Your task to perform on an android device: open app "Cash App" (install if not already installed), go to login, and select forgot password Image 0: 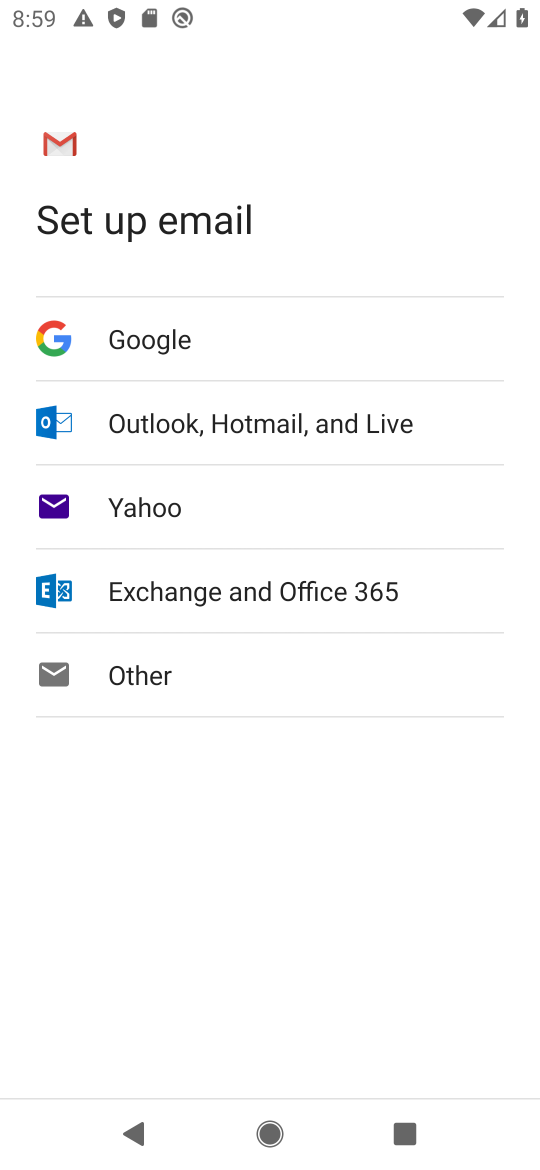
Step 0: press home button
Your task to perform on an android device: open app "Cash App" (install if not already installed), go to login, and select forgot password Image 1: 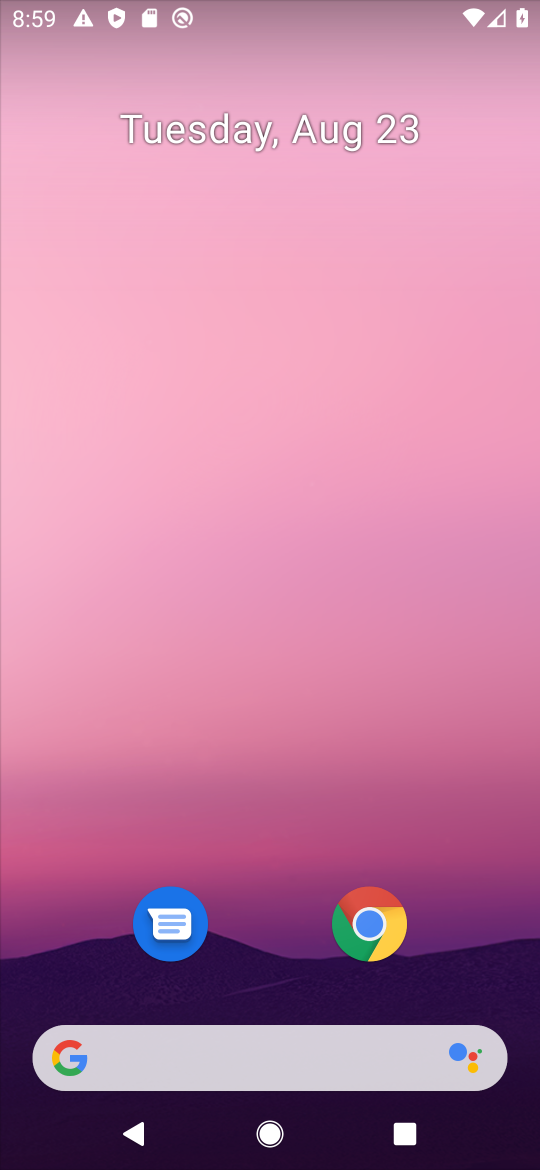
Step 1: drag from (452, 545) to (439, 71)
Your task to perform on an android device: open app "Cash App" (install if not already installed), go to login, and select forgot password Image 2: 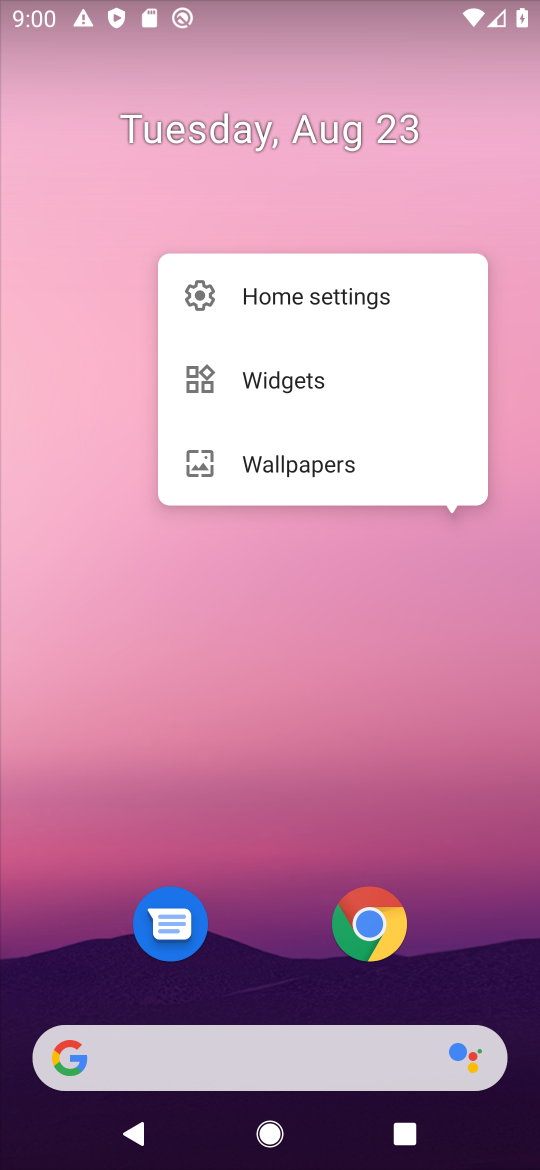
Step 2: click (432, 698)
Your task to perform on an android device: open app "Cash App" (install if not already installed), go to login, and select forgot password Image 3: 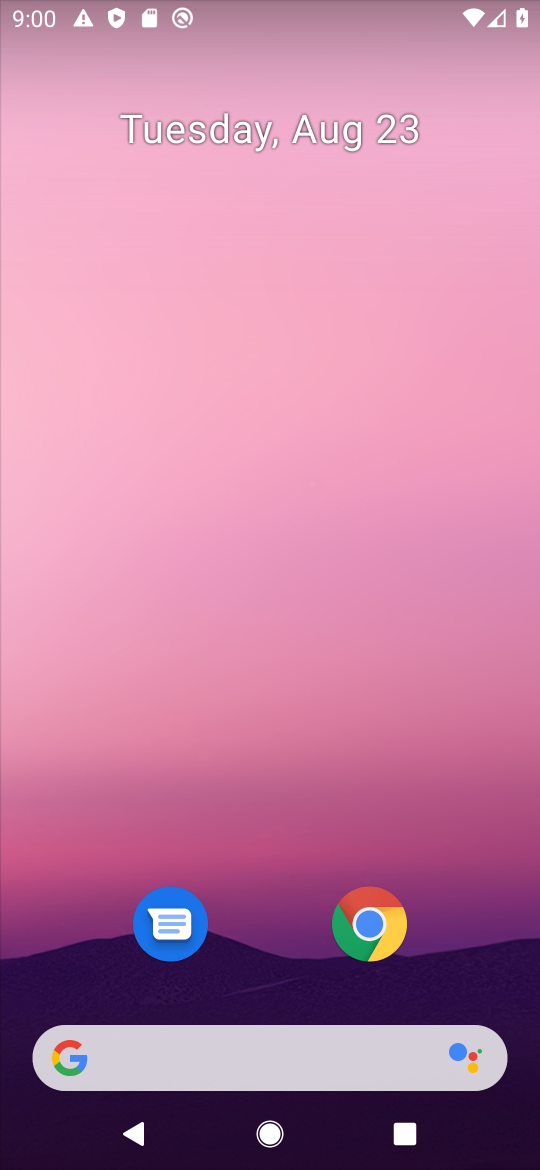
Step 3: drag from (437, 984) to (442, 70)
Your task to perform on an android device: open app "Cash App" (install if not already installed), go to login, and select forgot password Image 4: 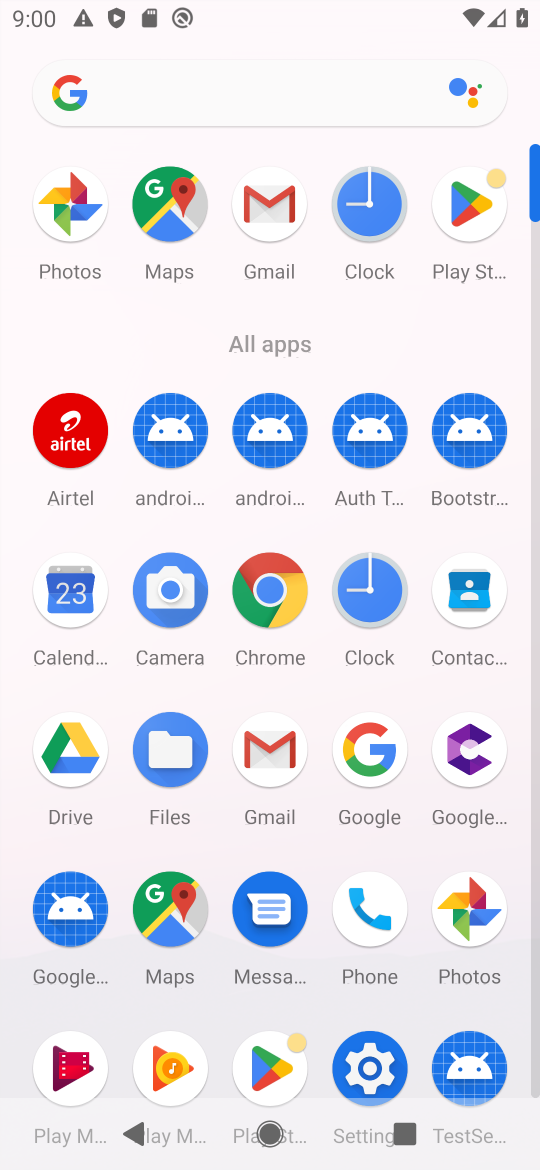
Step 4: click (473, 206)
Your task to perform on an android device: open app "Cash App" (install if not already installed), go to login, and select forgot password Image 5: 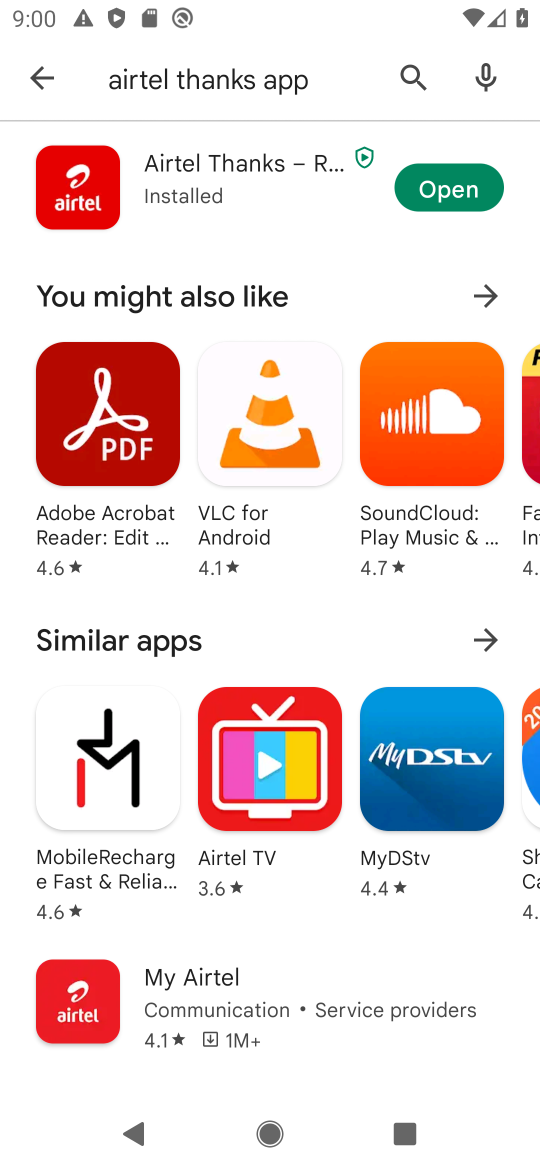
Step 5: press back button
Your task to perform on an android device: open app "Cash App" (install if not already installed), go to login, and select forgot password Image 6: 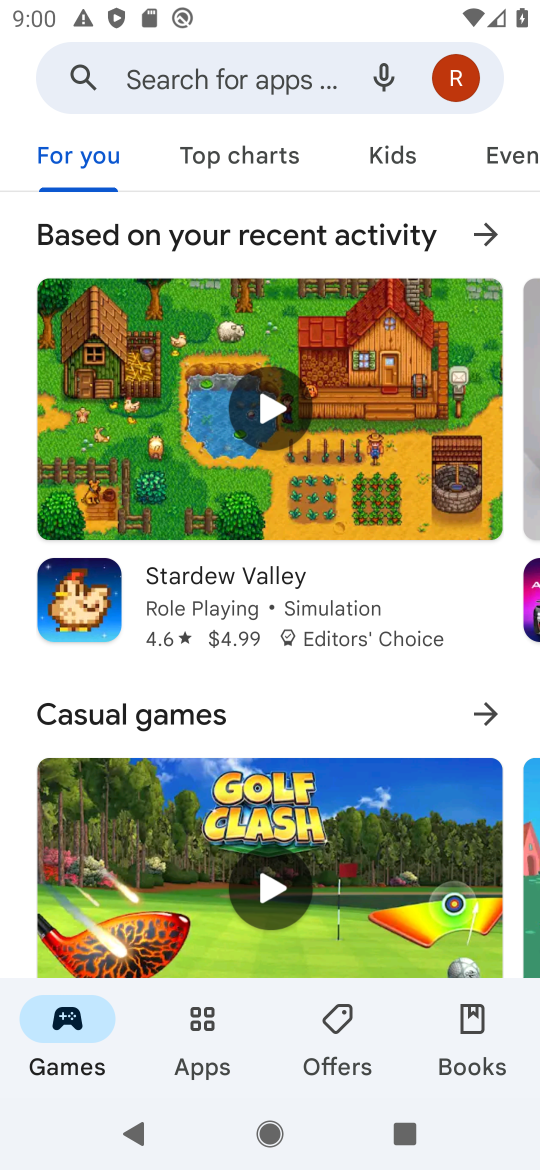
Step 6: click (273, 77)
Your task to perform on an android device: open app "Cash App" (install if not already installed), go to login, and select forgot password Image 7: 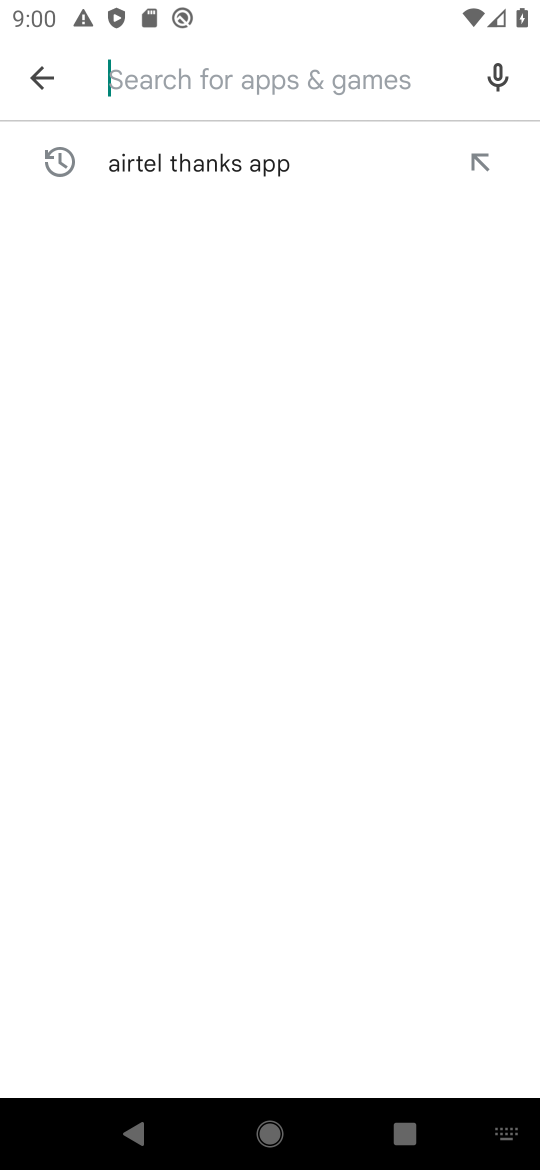
Step 7: type "cash app"
Your task to perform on an android device: open app "Cash App" (install if not already installed), go to login, and select forgot password Image 8: 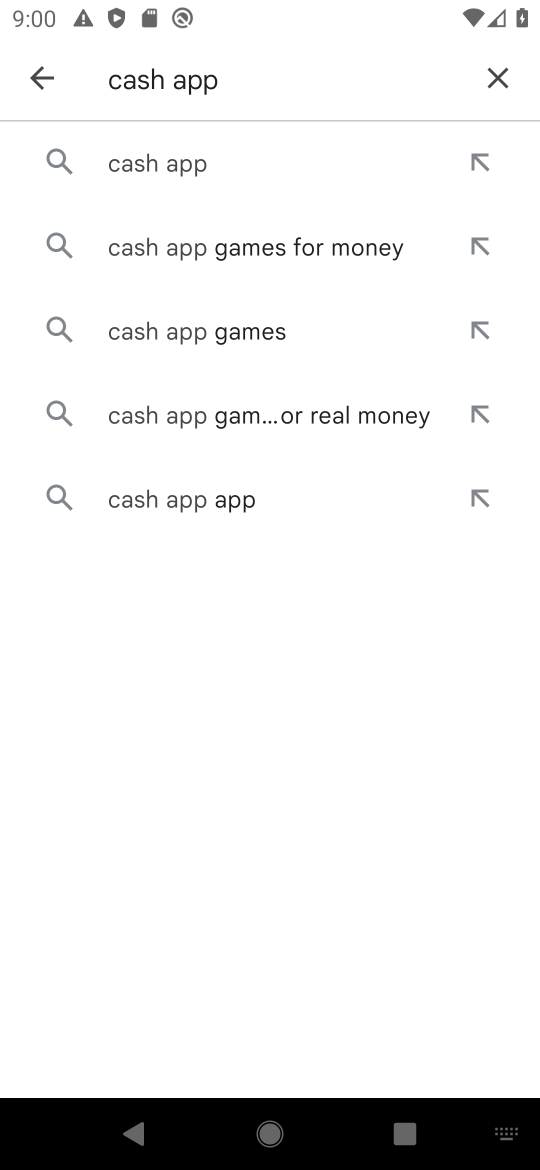
Step 8: click (196, 182)
Your task to perform on an android device: open app "Cash App" (install if not already installed), go to login, and select forgot password Image 9: 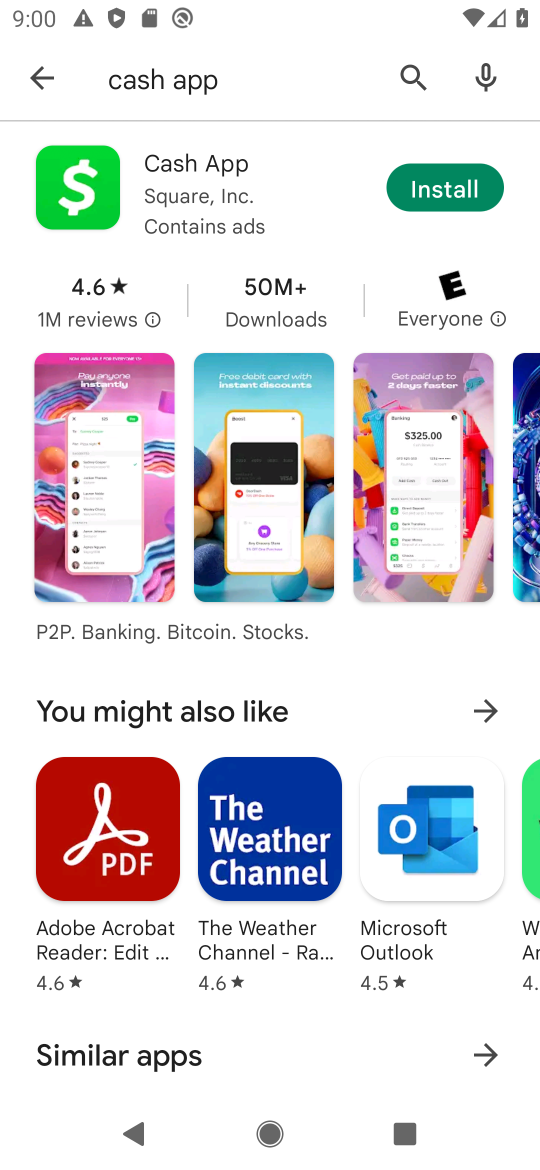
Step 9: click (450, 195)
Your task to perform on an android device: open app "Cash App" (install if not already installed), go to login, and select forgot password Image 10: 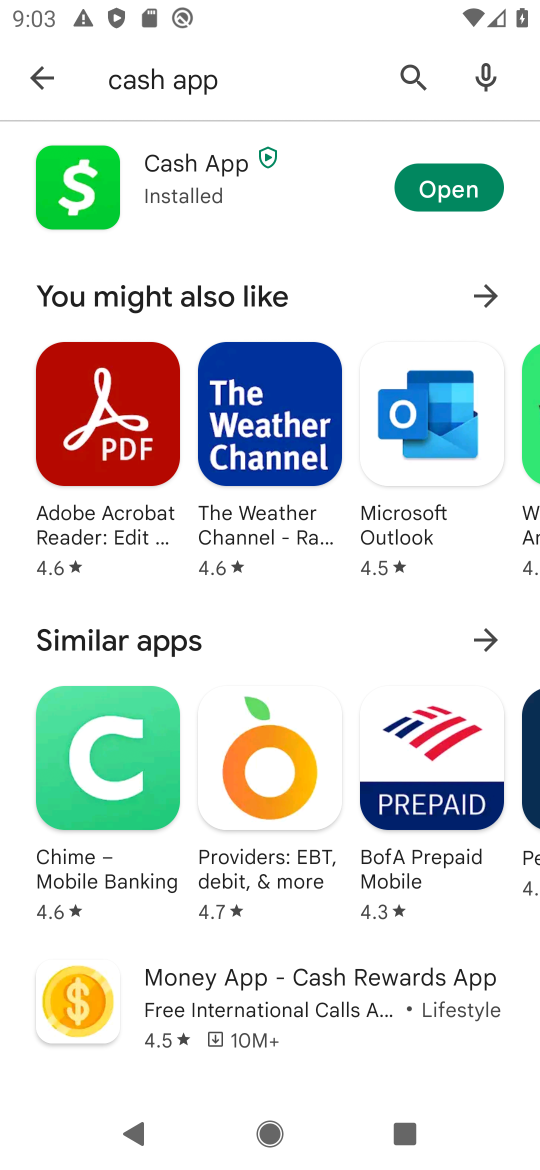
Step 10: click (443, 187)
Your task to perform on an android device: open app "Cash App" (install if not already installed), go to login, and select forgot password Image 11: 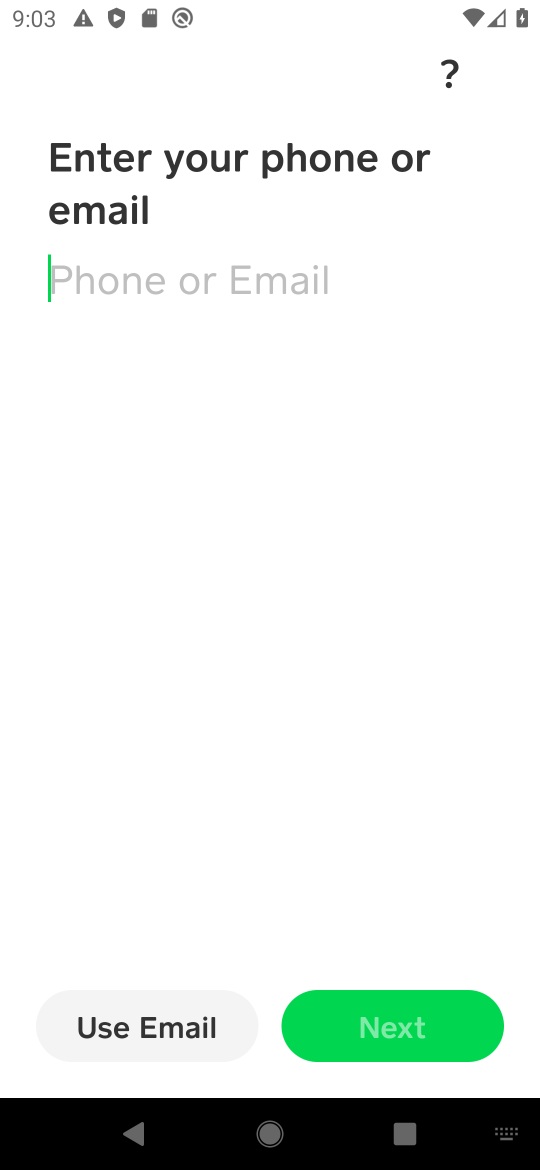
Step 11: task complete